Your task to perform on an android device: open a bookmark in the chrome app Image 0: 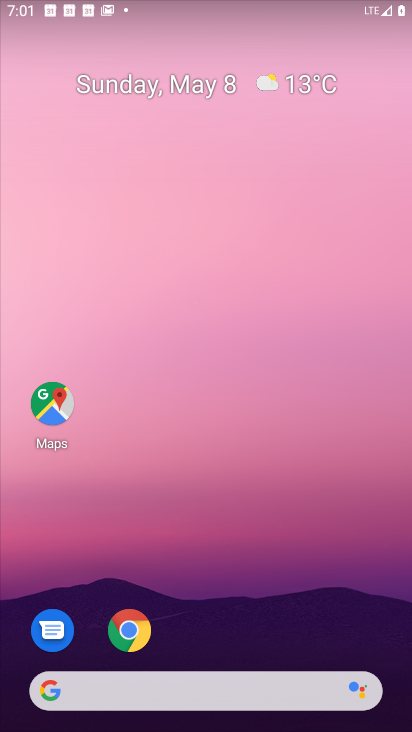
Step 0: click (130, 634)
Your task to perform on an android device: open a bookmark in the chrome app Image 1: 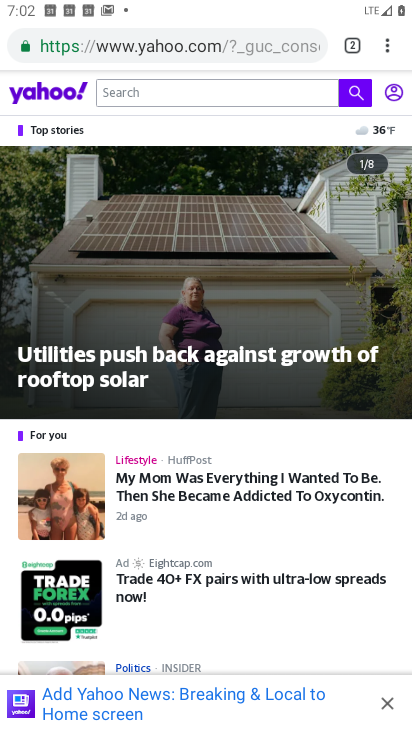
Step 1: click (382, 43)
Your task to perform on an android device: open a bookmark in the chrome app Image 2: 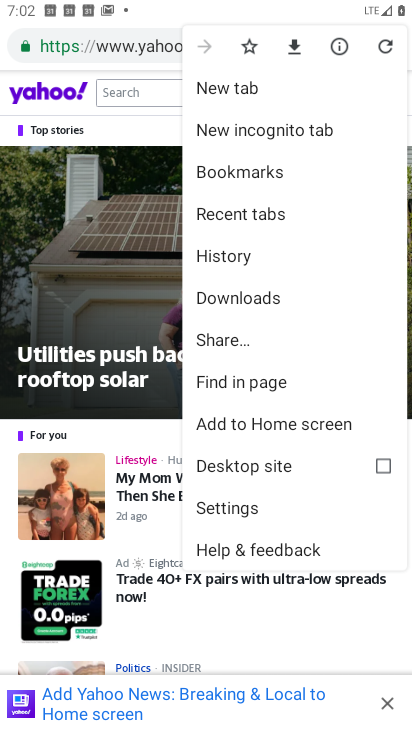
Step 2: click (258, 174)
Your task to perform on an android device: open a bookmark in the chrome app Image 3: 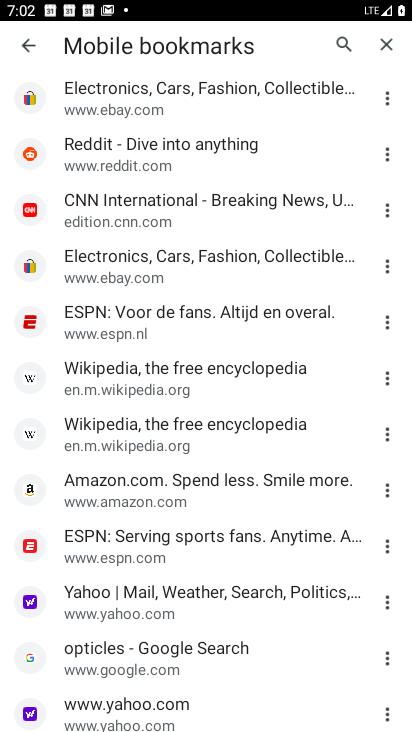
Step 3: task complete